Your task to perform on an android device: turn pop-ups off in chrome Image 0: 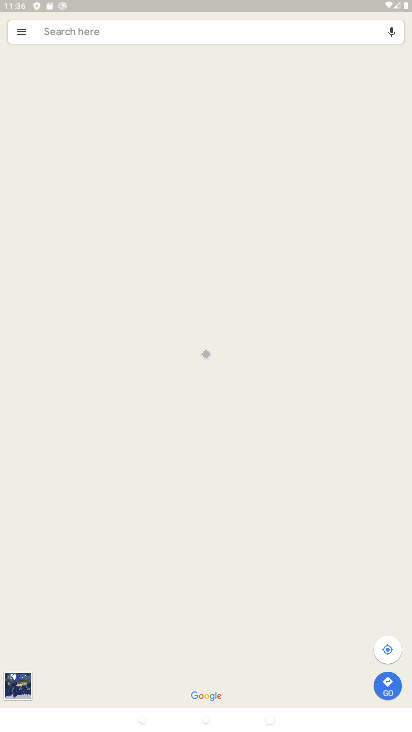
Step 0: press home button
Your task to perform on an android device: turn pop-ups off in chrome Image 1: 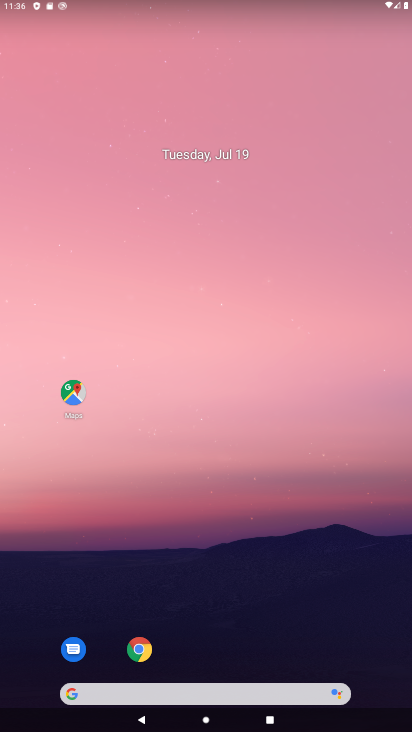
Step 1: click (144, 655)
Your task to perform on an android device: turn pop-ups off in chrome Image 2: 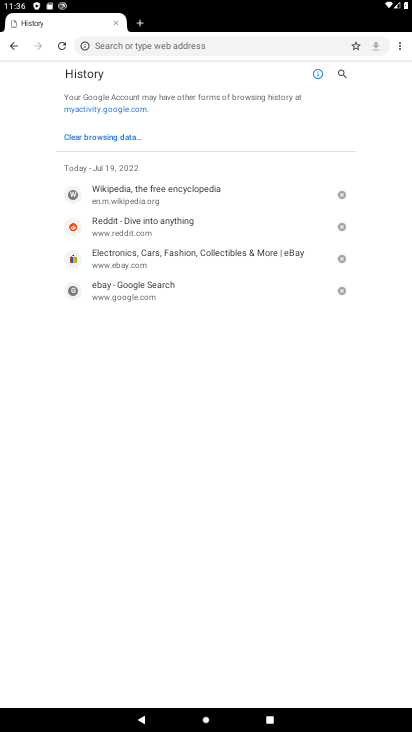
Step 2: click (401, 49)
Your task to perform on an android device: turn pop-ups off in chrome Image 3: 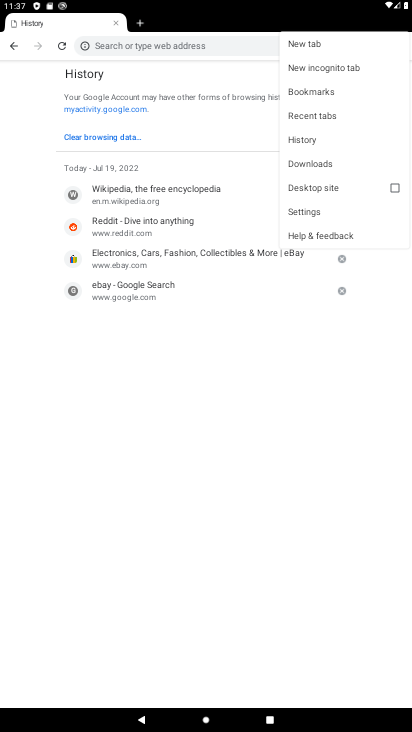
Step 3: click (314, 208)
Your task to perform on an android device: turn pop-ups off in chrome Image 4: 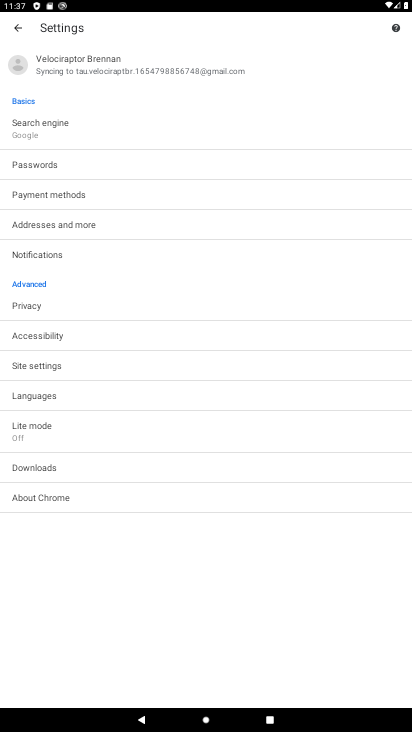
Step 4: click (152, 369)
Your task to perform on an android device: turn pop-ups off in chrome Image 5: 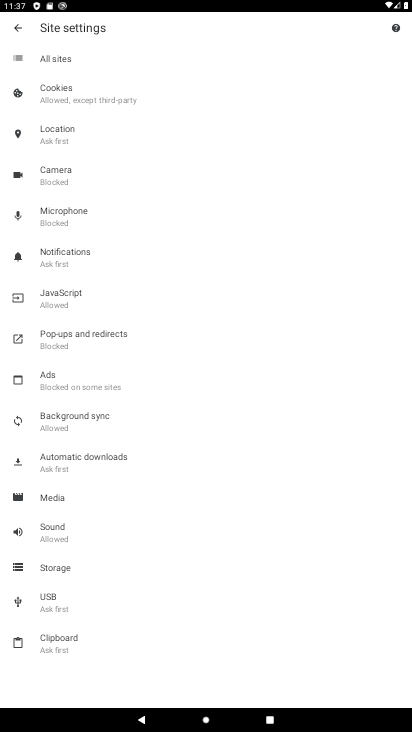
Step 5: click (104, 346)
Your task to perform on an android device: turn pop-ups off in chrome Image 6: 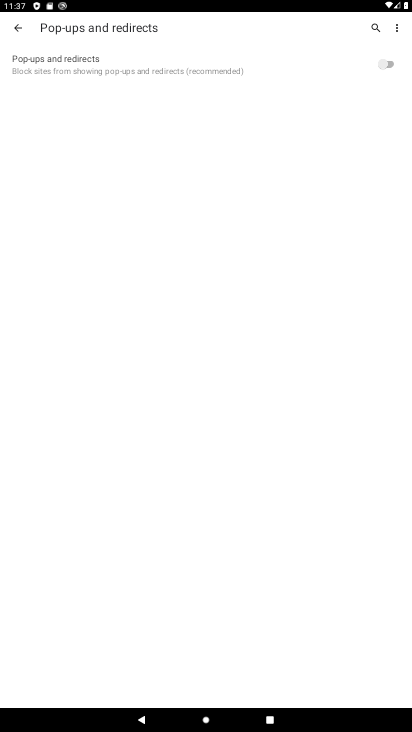
Step 6: task complete